Your task to perform on an android device: check data usage Image 0: 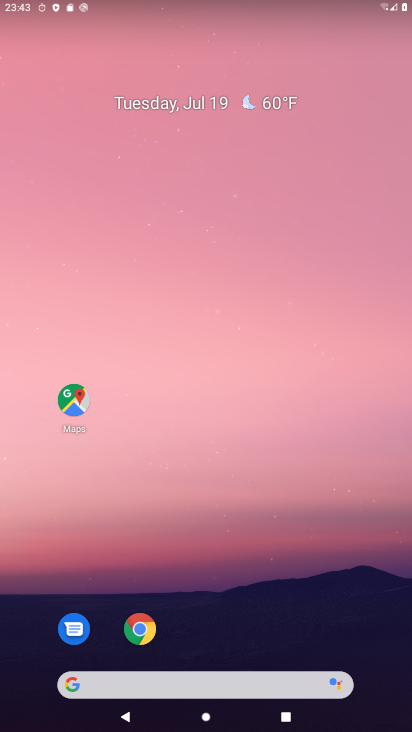
Step 0: drag from (329, 582) to (322, 135)
Your task to perform on an android device: check data usage Image 1: 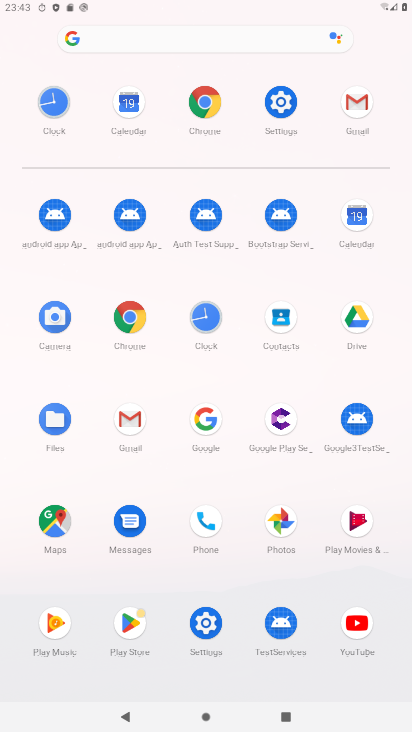
Step 1: click (281, 113)
Your task to perform on an android device: check data usage Image 2: 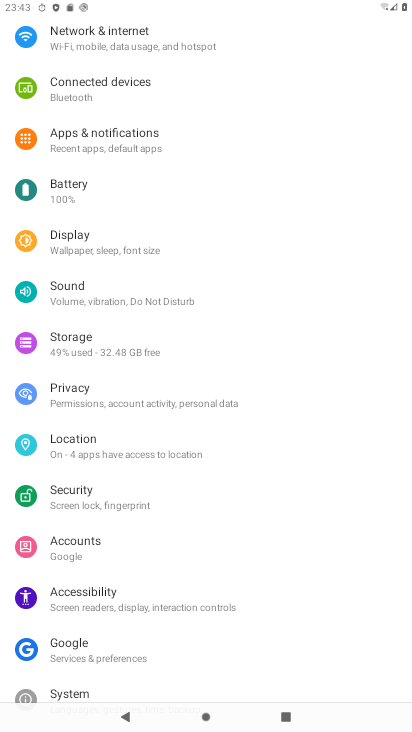
Step 2: click (214, 38)
Your task to perform on an android device: check data usage Image 3: 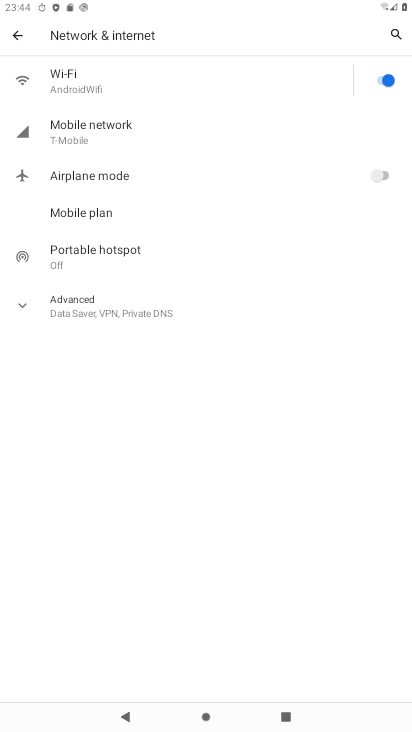
Step 3: click (138, 120)
Your task to perform on an android device: check data usage Image 4: 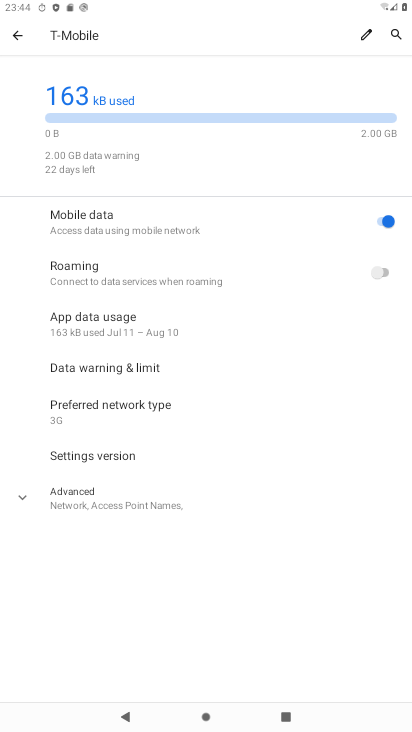
Step 4: click (114, 324)
Your task to perform on an android device: check data usage Image 5: 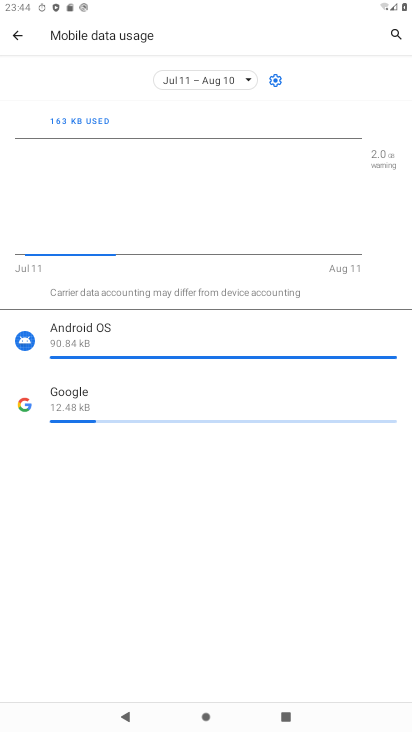
Step 5: task complete